Your task to perform on an android device: View the shopping cart on amazon. Add acer predator to the cart on amazon, then select checkout. Image 0: 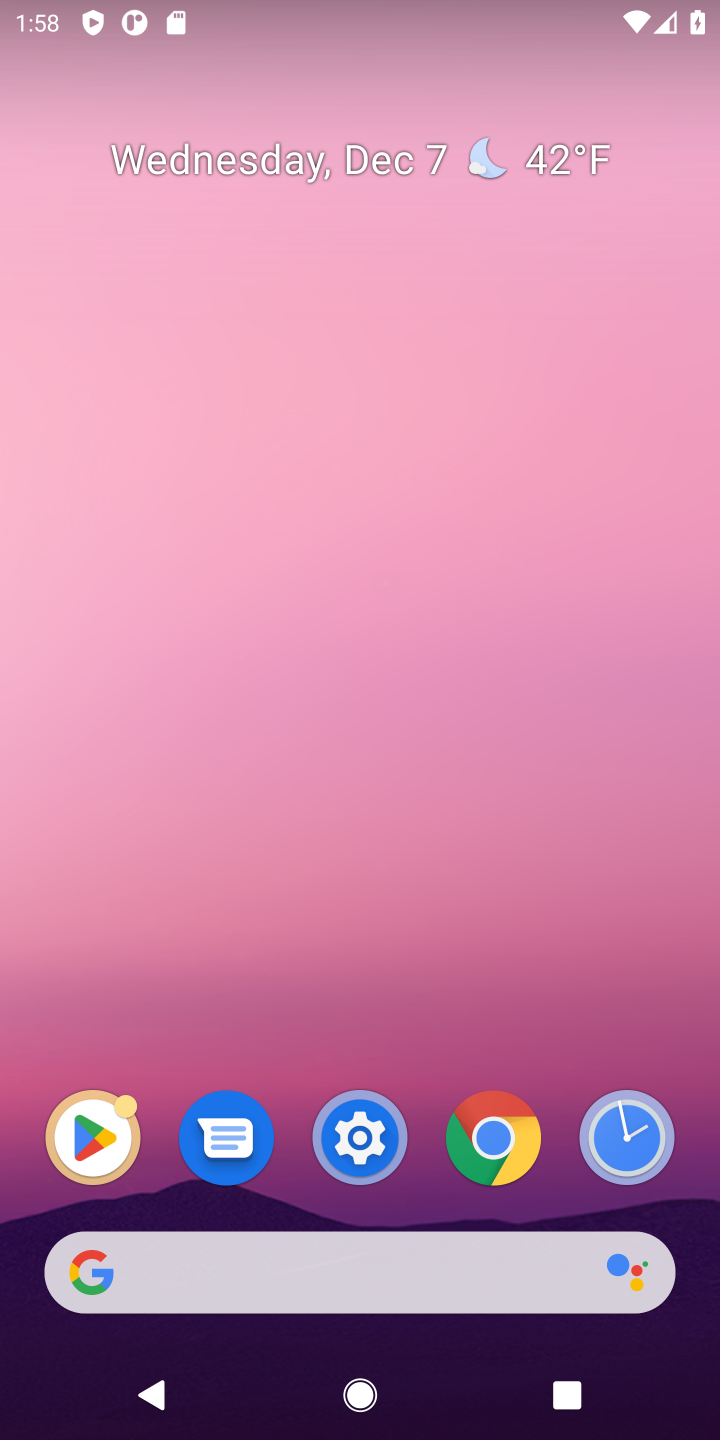
Step 0: click (355, 1258)
Your task to perform on an android device: View the shopping cart on amazon. Add acer predator to the cart on amazon, then select checkout. Image 1: 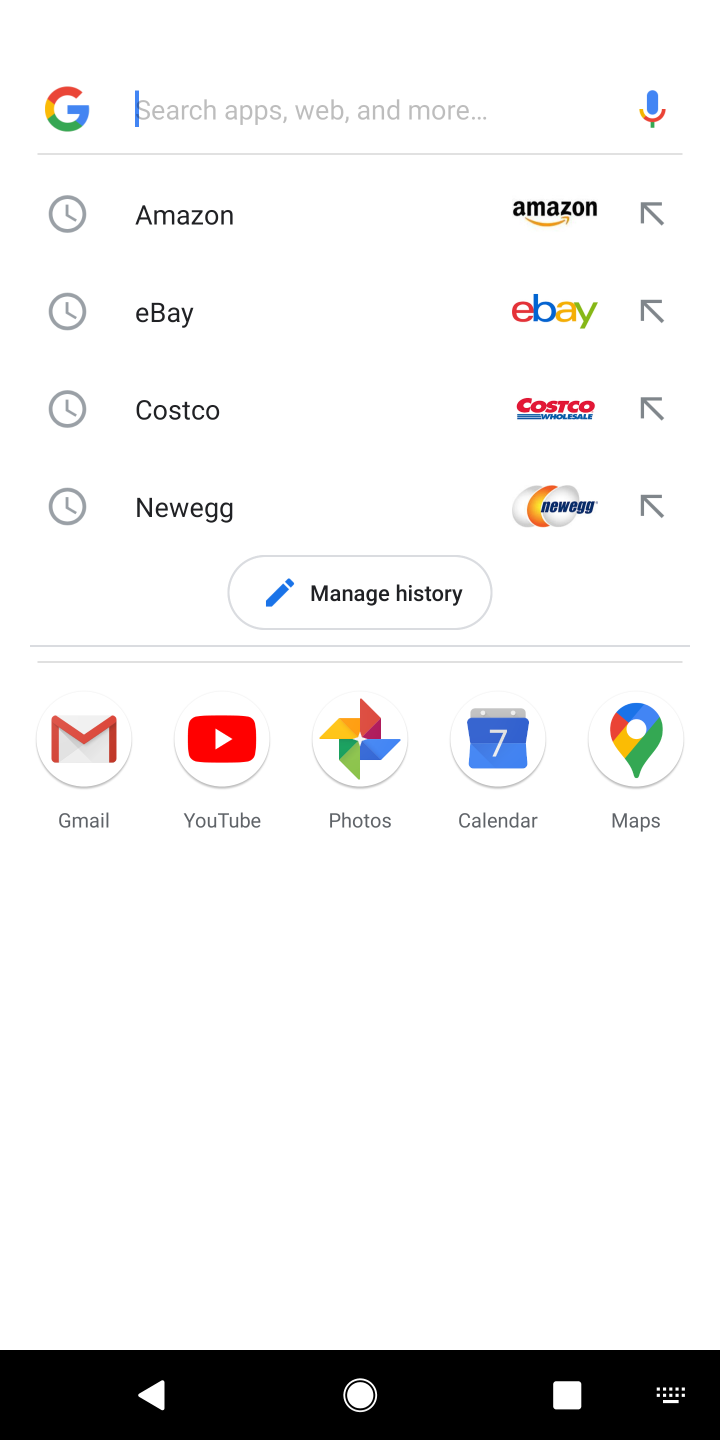
Step 1: click (359, 217)
Your task to perform on an android device: View the shopping cart on amazon. Add acer predator to the cart on amazon, then select checkout. Image 2: 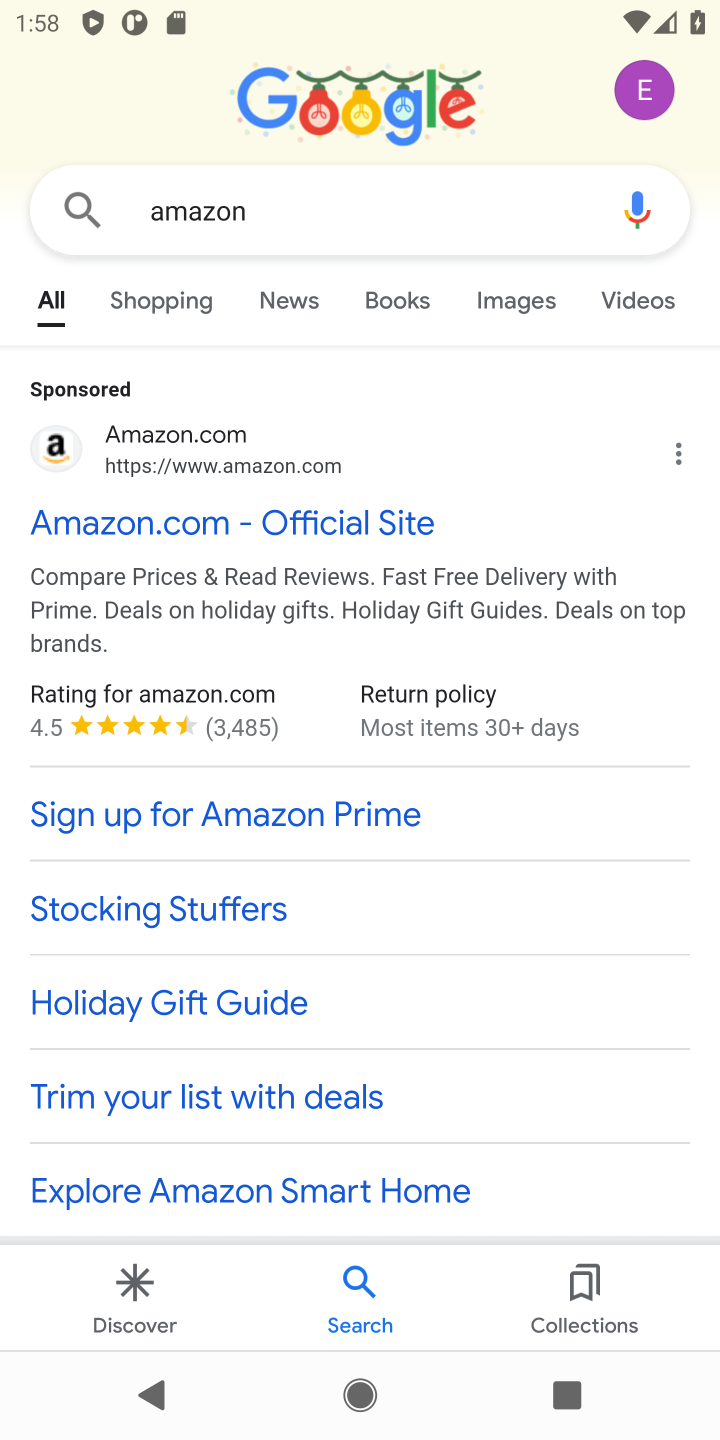
Step 2: click (313, 515)
Your task to perform on an android device: View the shopping cart on amazon. Add acer predator to the cart on amazon, then select checkout. Image 3: 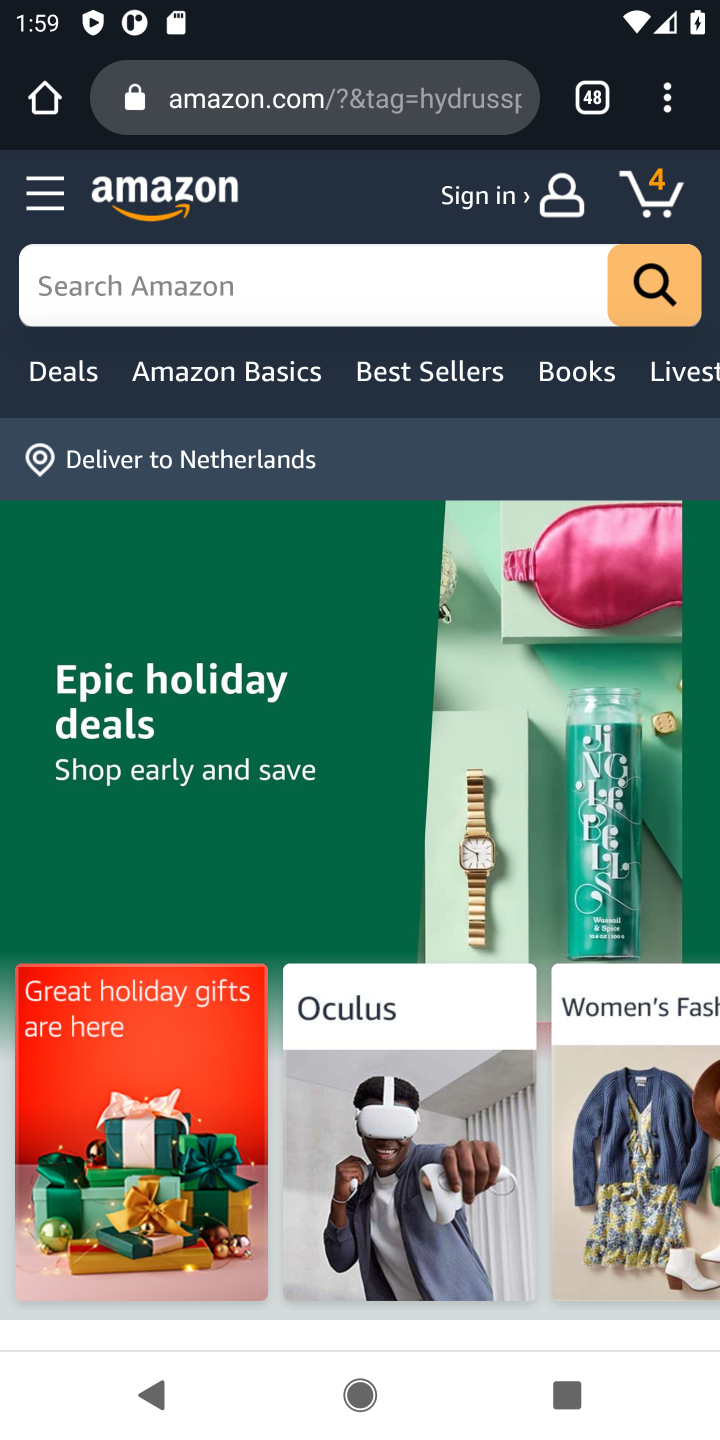
Step 3: click (322, 311)
Your task to perform on an android device: View the shopping cart on amazon. Add acer predator to the cart on amazon, then select checkout. Image 4: 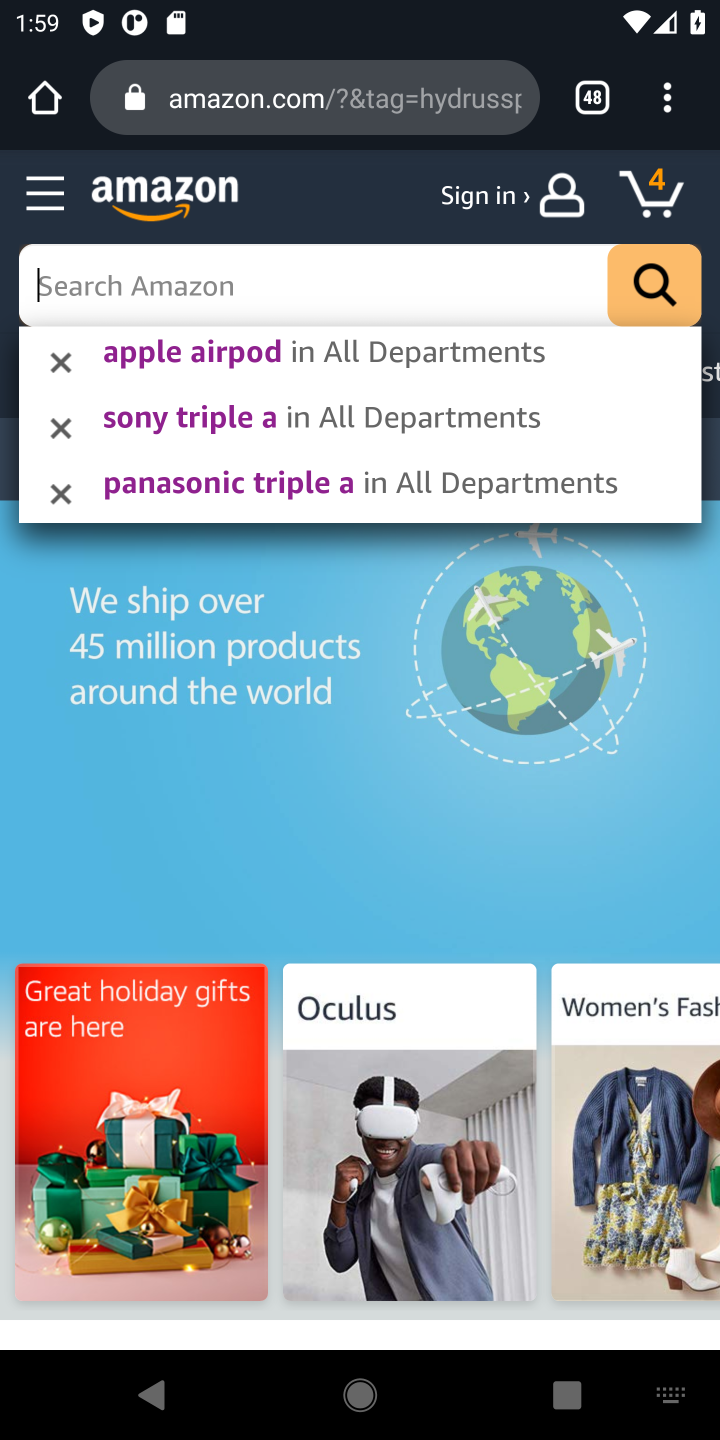
Step 4: type "acer predator"
Your task to perform on an android device: View the shopping cart on amazon. Add acer predator to the cart on amazon, then select checkout. Image 5: 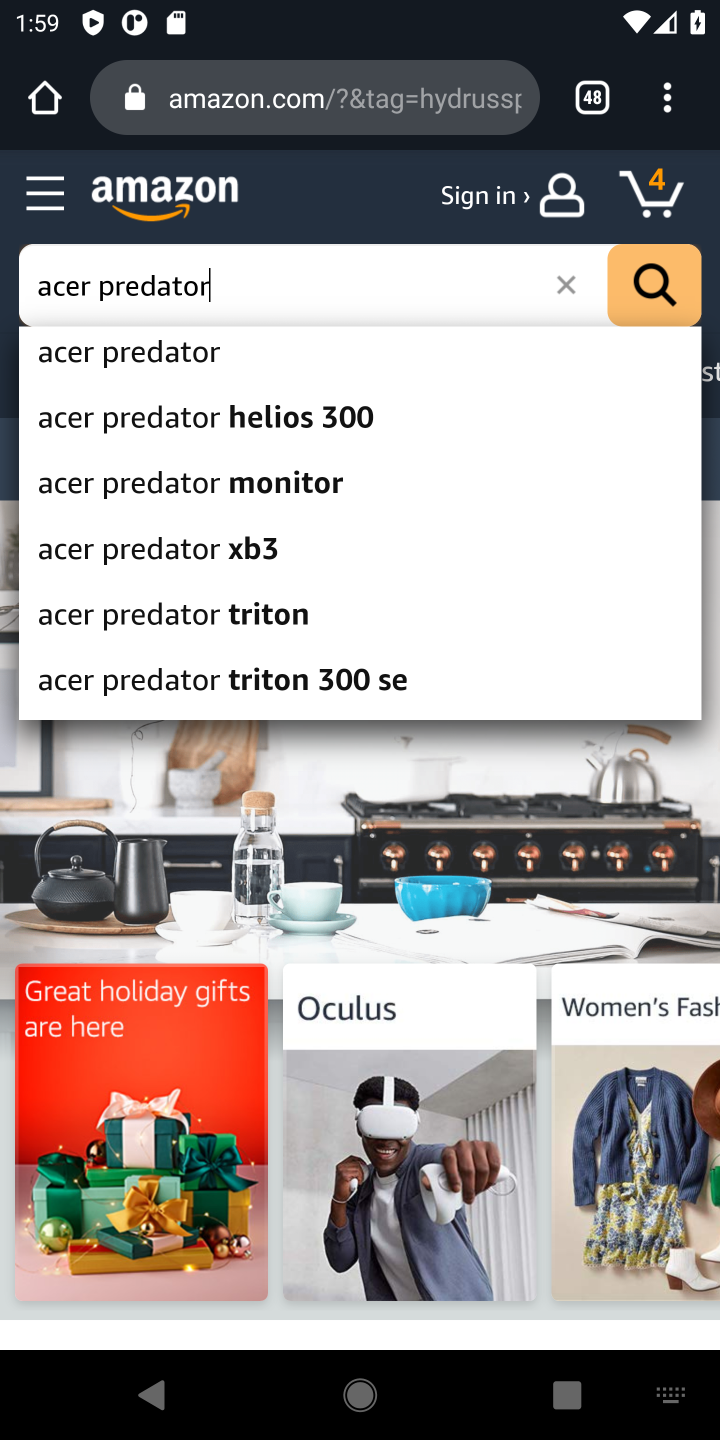
Step 5: click (635, 299)
Your task to perform on an android device: View the shopping cart on amazon. Add acer predator to the cart on amazon, then select checkout. Image 6: 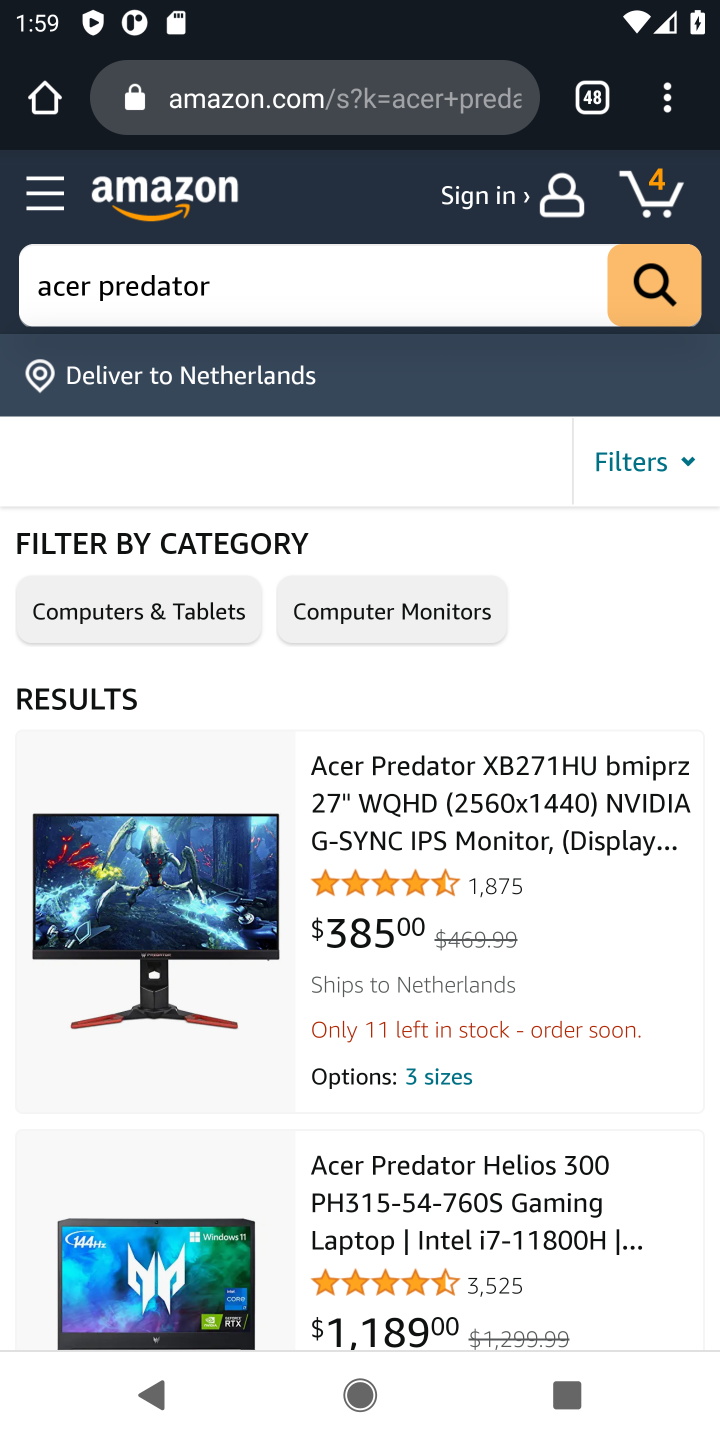
Step 6: click (460, 801)
Your task to perform on an android device: View the shopping cart on amazon. Add acer predator to the cart on amazon, then select checkout. Image 7: 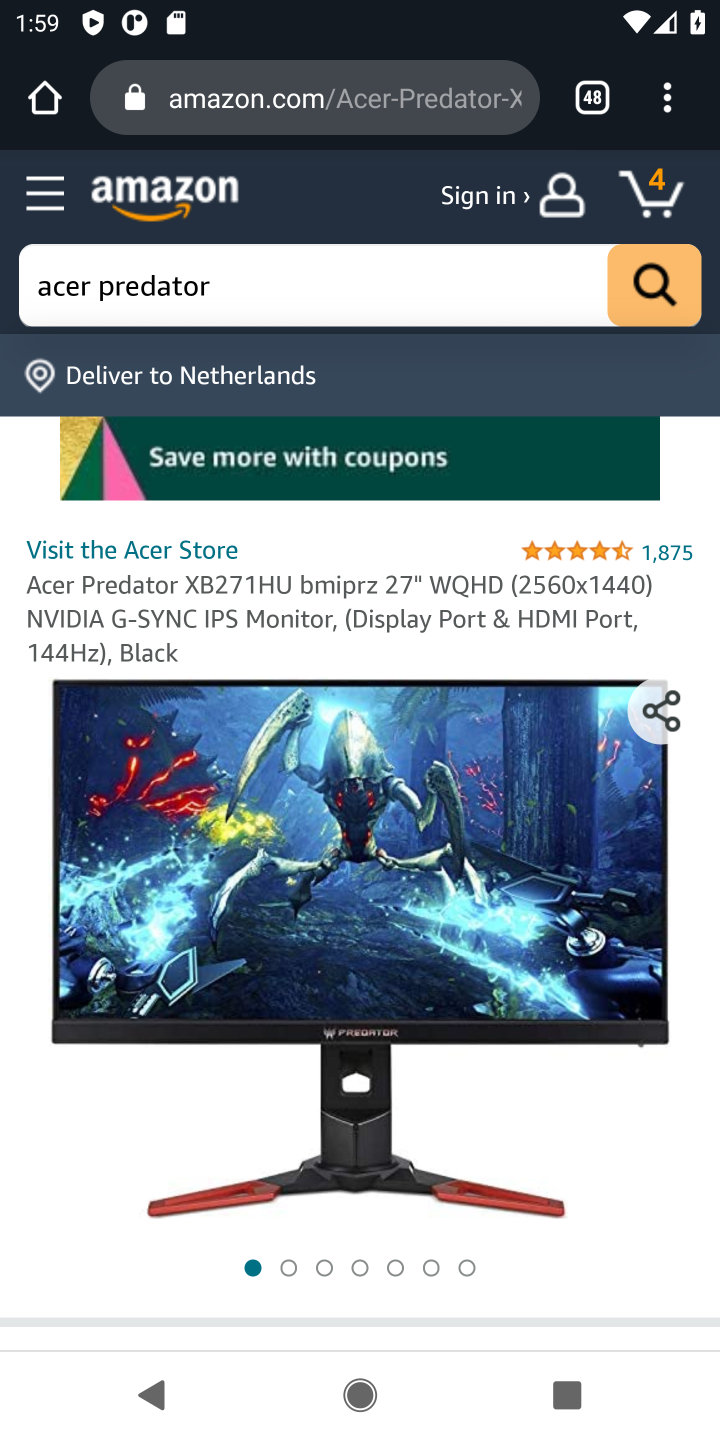
Step 7: drag from (518, 1193) to (521, 608)
Your task to perform on an android device: View the shopping cart on amazon. Add acer predator to the cart on amazon, then select checkout. Image 8: 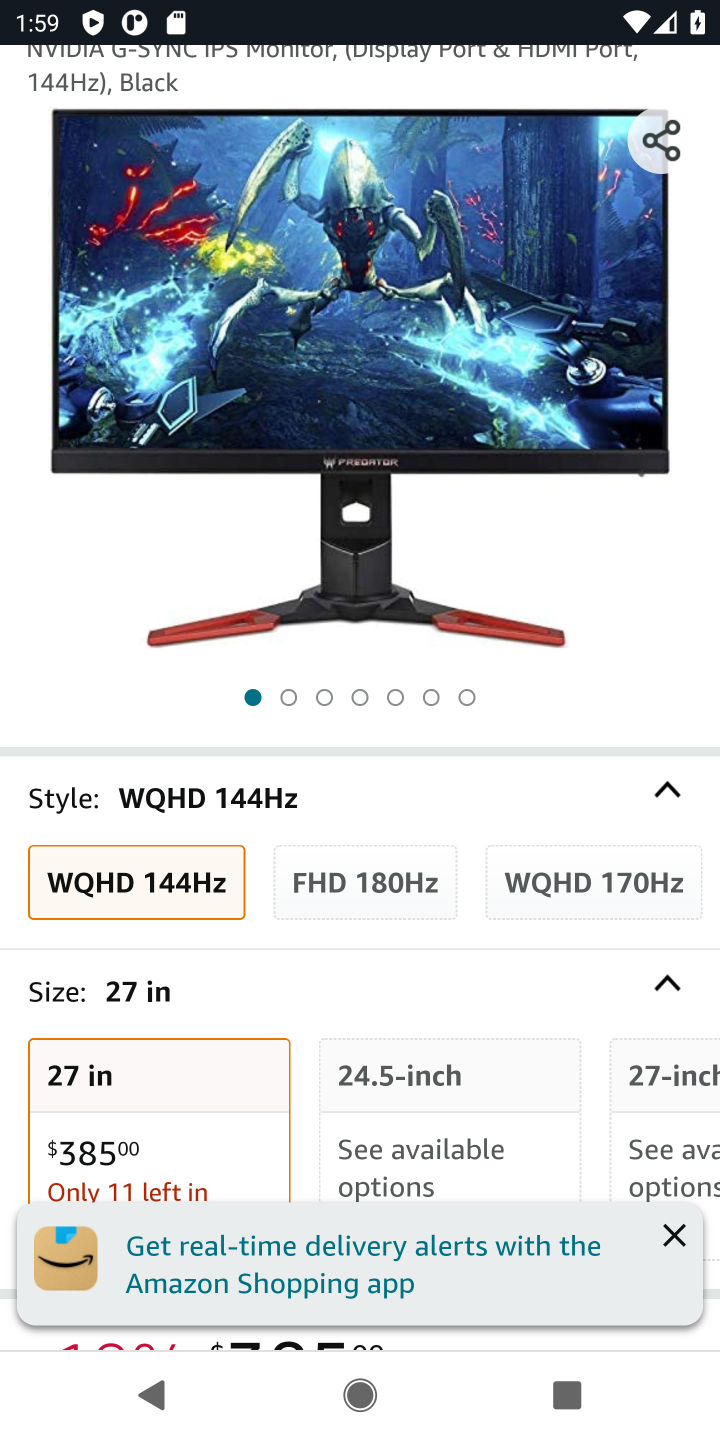
Step 8: click (666, 1234)
Your task to perform on an android device: View the shopping cart on amazon. Add acer predator to the cart on amazon, then select checkout. Image 9: 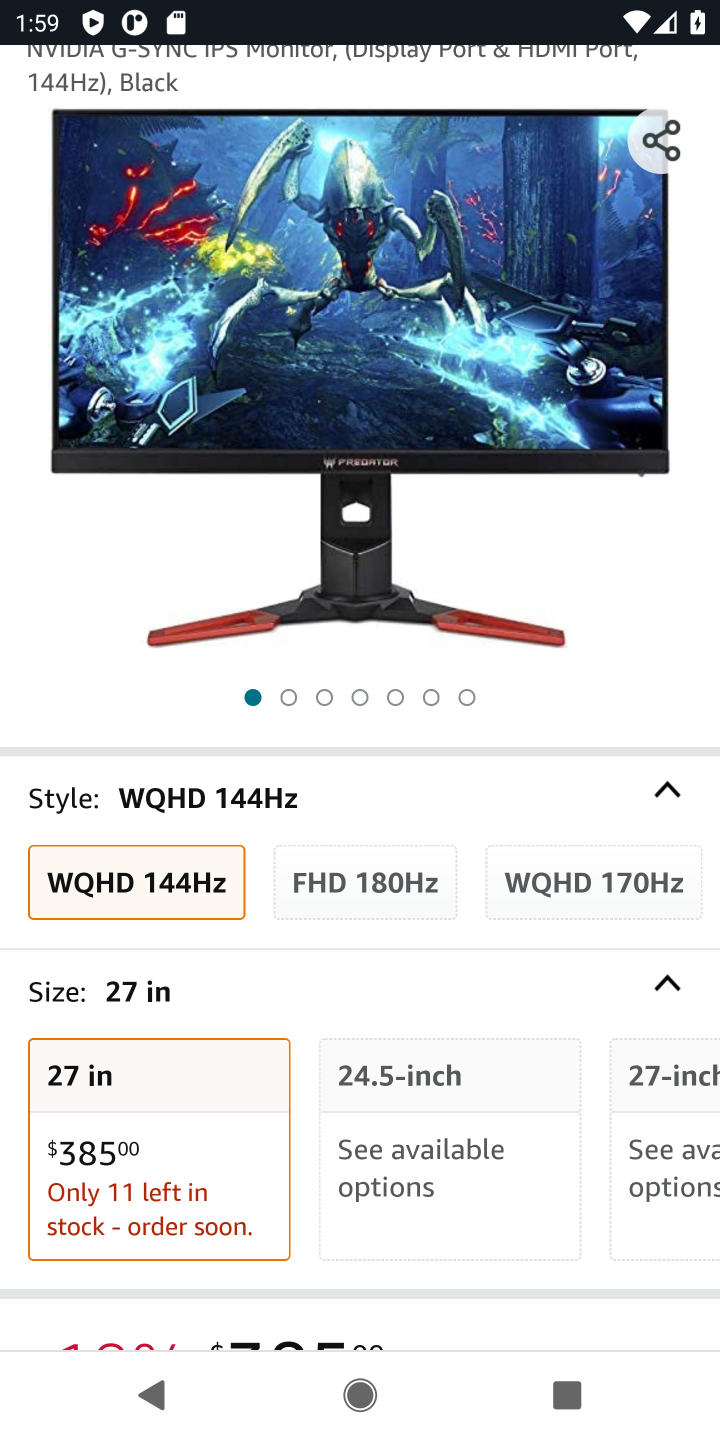
Step 9: drag from (508, 1251) to (557, 614)
Your task to perform on an android device: View the shopping cart on amazon. Add acer predator to the cart on amazon, then select checkout. Image 10: 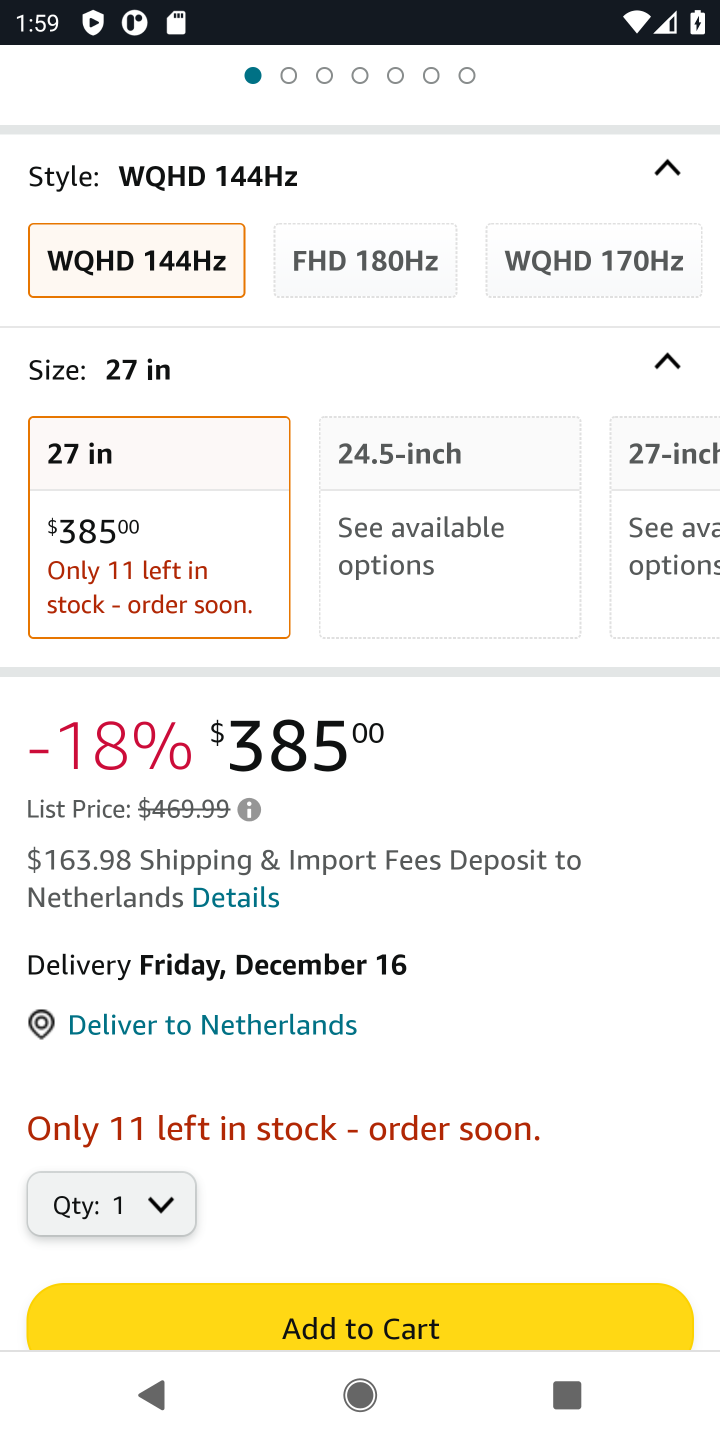
Step 10: click (539, 1329)
Your task to perform on an android device: View the shopping cart on amazon. Add acer predator to the cart on amazon, then select checkout. Image 11: 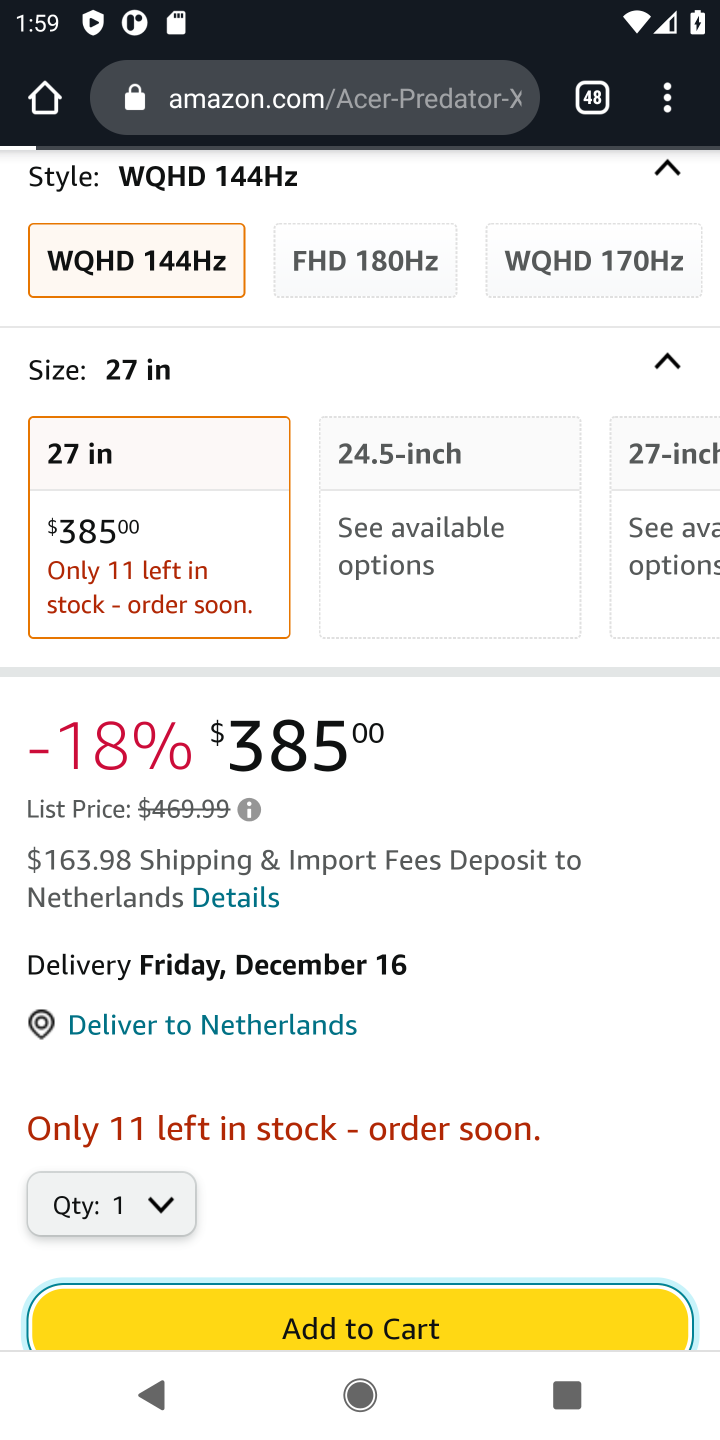
Step 11: task complete